Your task to perform on an android device: Go to calendar. Show me events next week Image 0: 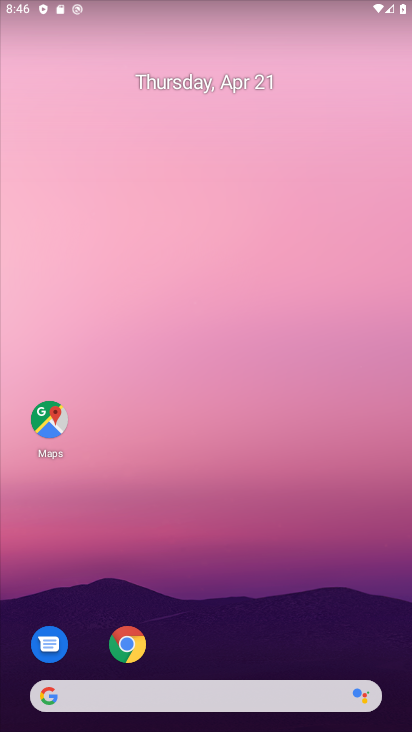
Step 0: drag from (146, 350) to (122, 20)
Your task to perform on an android device: Go to calendar. Show me events next week Image 1: 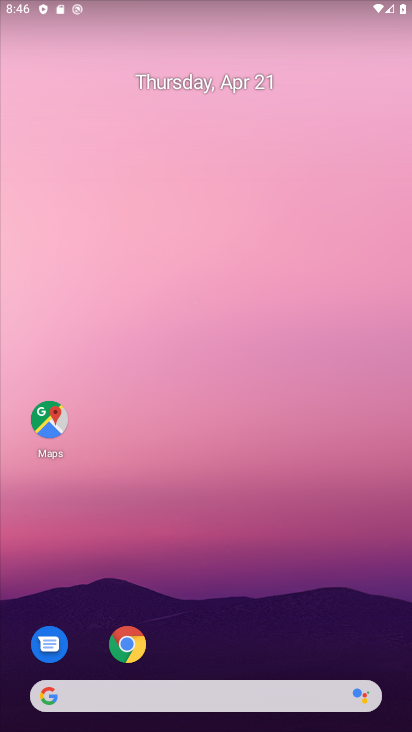
Step 1: drag from (287, 624) to (78, 77)
Your task to perform on an android device: Go to calendar. Show me events next week Image 2: 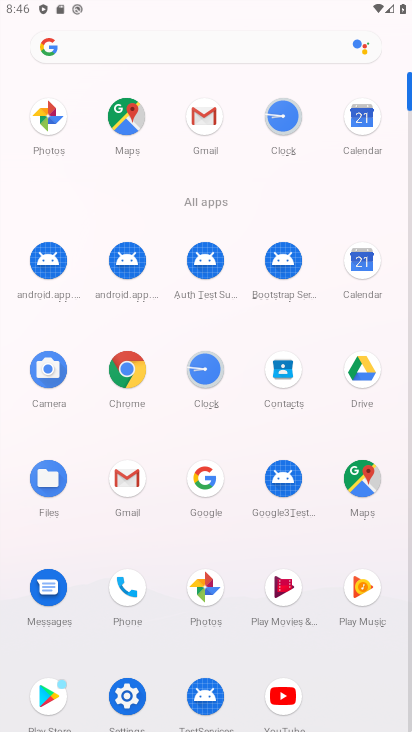
Step 2: click (355, 261)
Your task to perform on an android device: Go to calendar. Show me events next week Image 3: 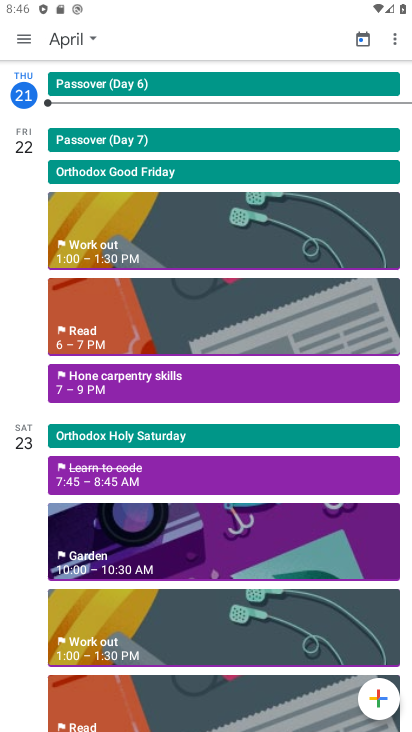
Step 3: task complete